Your task to perform on an android device: How much does a 2 bedroom apartment rent for in Boston? Image 0: 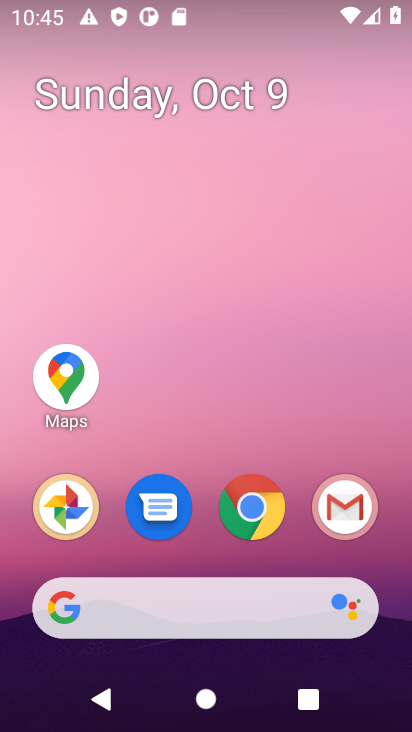
Step 0: click (232, 611)
Your task to perform on an android device: How much does a 2 bedroom apartment rent for in Boston? Image 1: 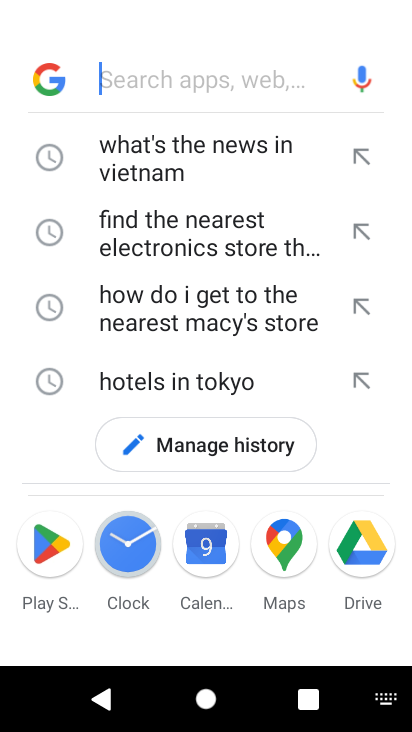
Step 1: type " 2 bedroom apartment rent for in Boston"
Your task to perform on an android device: How much does a 2 bedroom apartment rent for in Boston? Image 2: 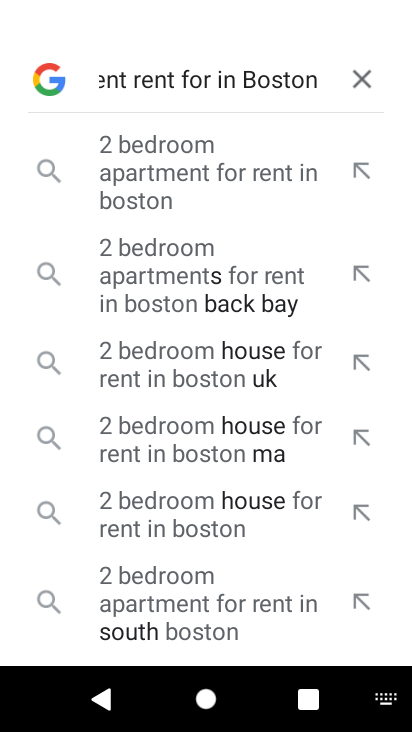
Step 2: press enter
Your task to perform on an android device: How much does a 2 bedroom apartment rent for in Boston? Image 3: 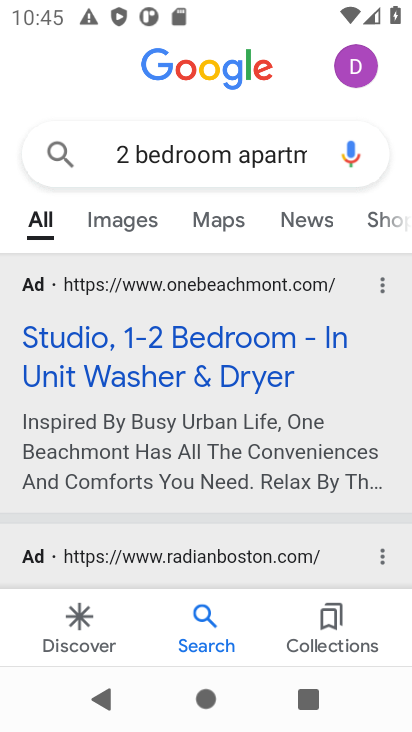
Step 3: drag from (327, 452) to (329, 278)
Your task to perform on an android device: How much does a 2 bedroom apartment rent for in Boston? Image 4: 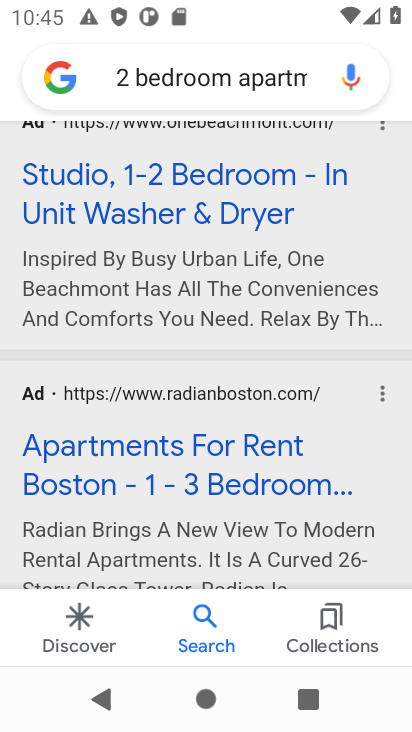
Step 4: drag from (306, 506) to (302, 340)
Your task to perform on an android device: How much does a 2 bedroom apartment rent for in Boston? Image 5: 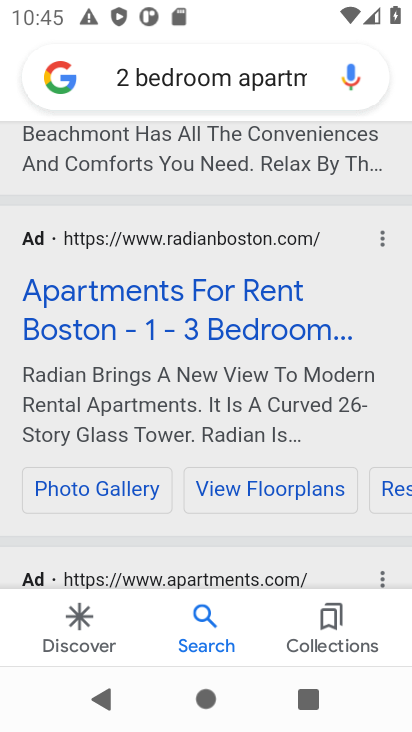
Step 5: drag from (300, 518) to (293, 315)
Your task to perform on an android device: How much does a 2 bedroom apartment rent for in Boston? Image 6: 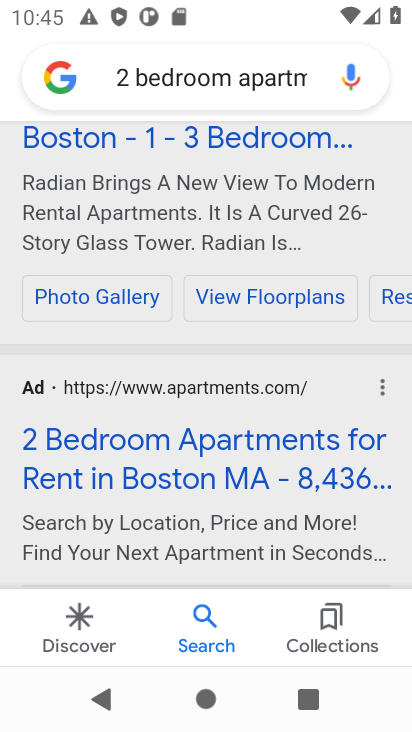
Step 6: click (273, 459)
Your task to perform on an android device: How much does a 2 bedroom apartment rent for in Boston? Image 7: 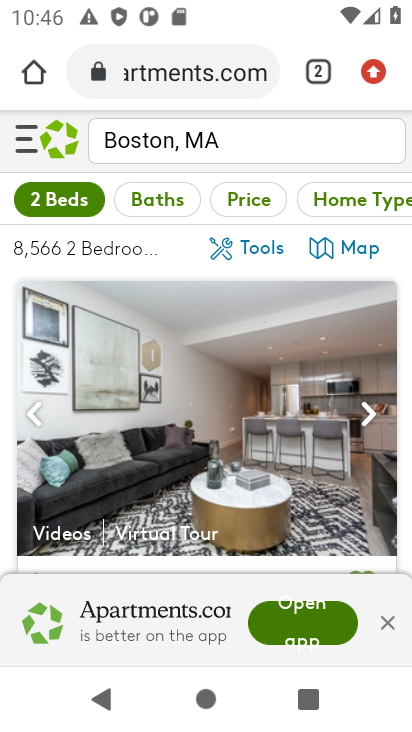
Step 7: task complete